Your task to perform on an android device: Add logitech g910 to the cart on newegg Image 0: 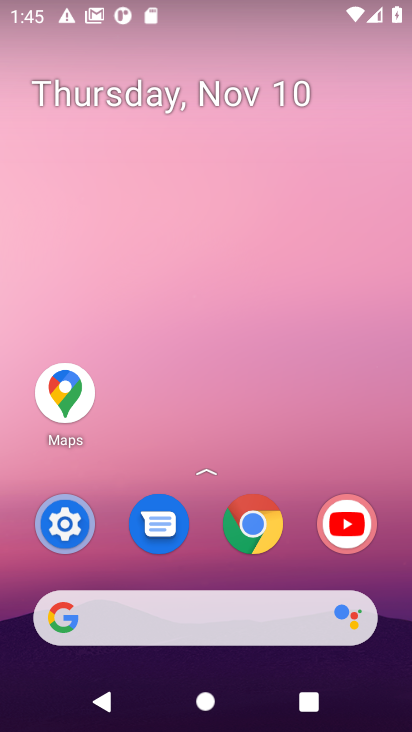
Step 0: click (246, 517)
Your task to perform on an android device: Add logitech g910 to the cart on newegg Image 1: 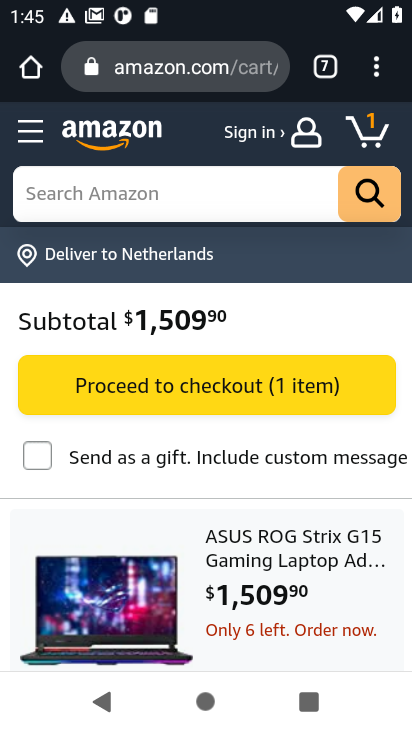
Step 1: click (326, 69)
Your task to perform on an android device: Add logitech g910 to the cart on newegg Image 2: 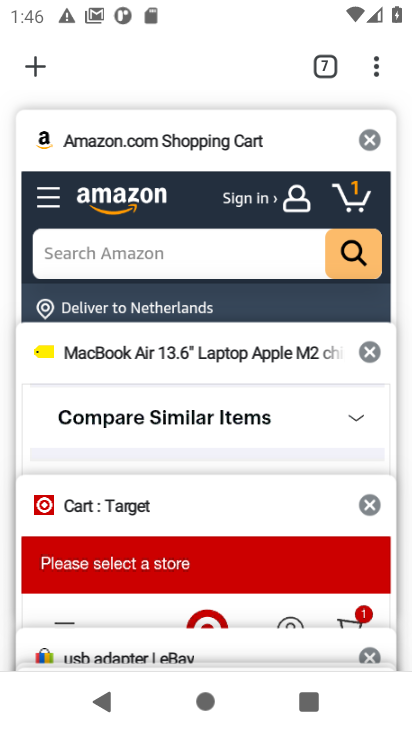
Step 2: drag from (227, 621) to (302, 312)
Your task to perform on an android device: Add logitech g910 to the cart on newegg Image 3: 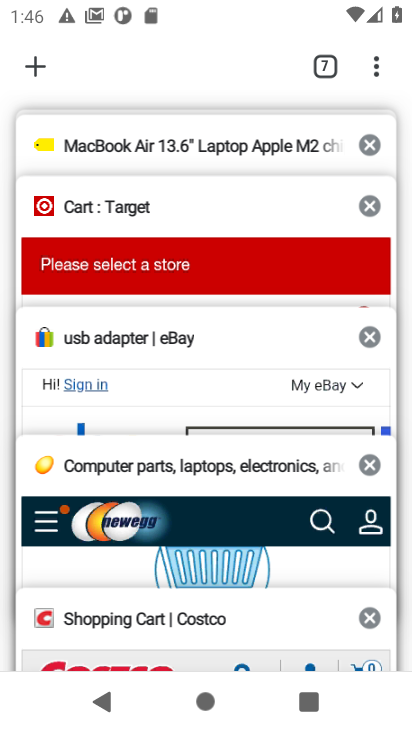
Step 3: click (220, 511)
Your task to perform on an android device: Add logitech g910 to the cart on newegg Image 4: 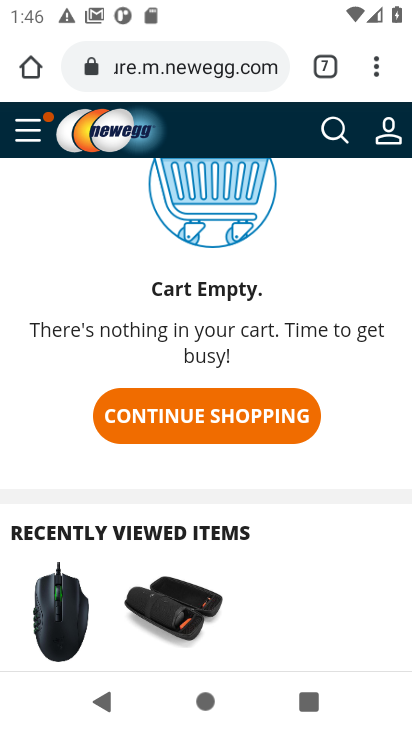
Step 4: click (341, 135)
Your task to perform on an android device: Add logitech g910 to the cart on newegg Image 5: 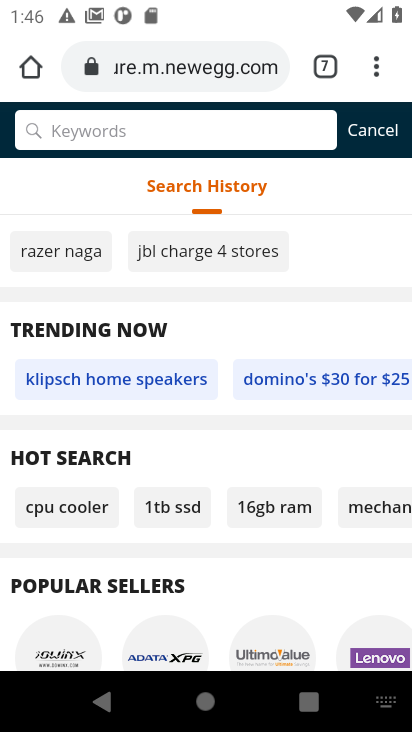
Step 5: click (278, 127)
Your task to perform on an android device: Add logitech g910 to the cart on newegg Image 6: 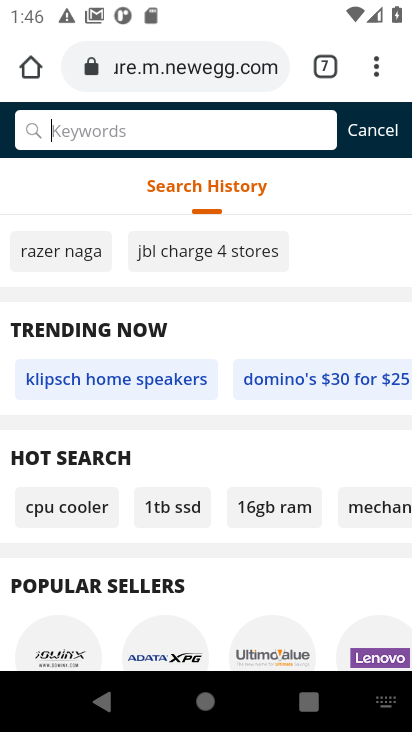
Step 6: type "logitech g910"
Your task to perform on an android device: Add logitech g910 to the cart on newegg Image 7: 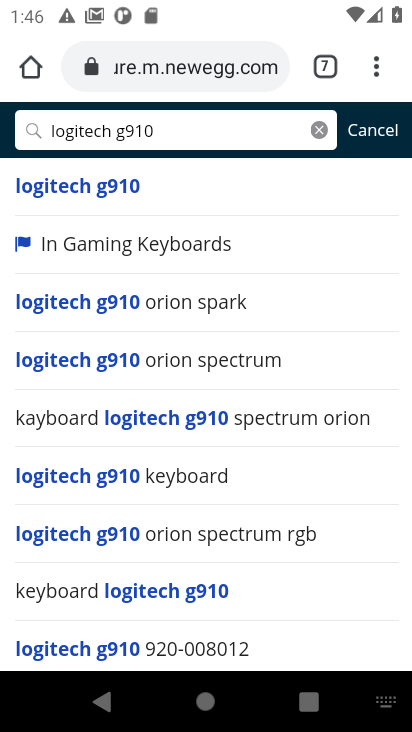
Step 7: click (98, 192)
Your task to perform on an android device: Add logitech g910 to the cart on newegg Image 8: 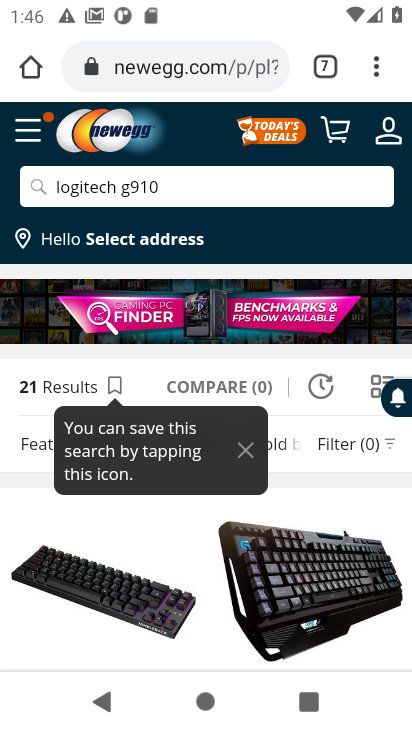
Step 8: drag from (143, 581) to (217, 259)
Your task to perform on an android device: Add logitech g910 to the cart on newegg Image 9: 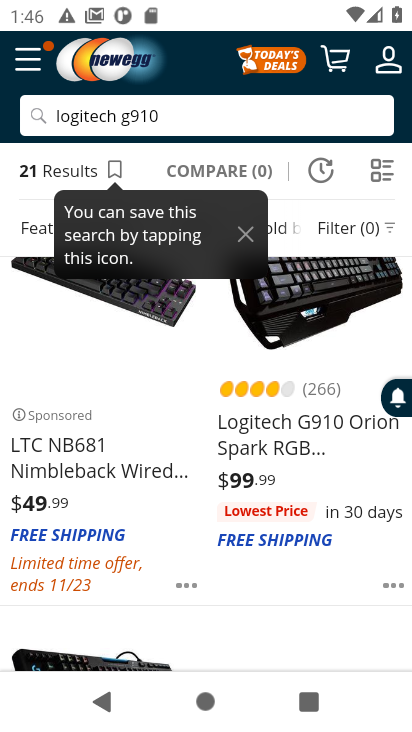
Step 9: click (281, 417)
Your task to perform on an android device: Add logitech g910 to the cart on newegg Image 10: 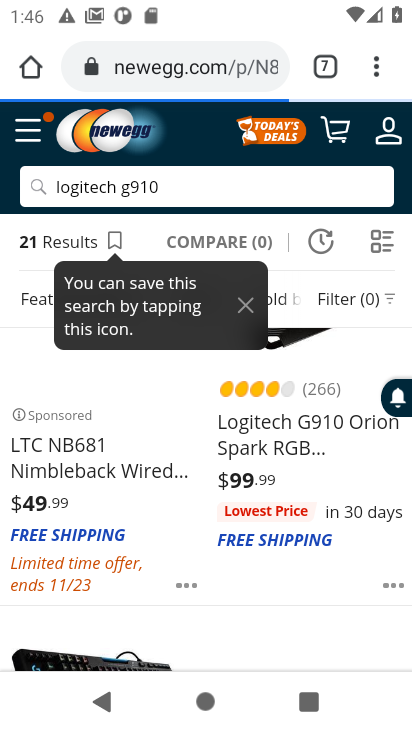
Step 10: click (281, 417)
Your task to perform on an android device: Add logitech g910 to the cart on newegg Image 11: 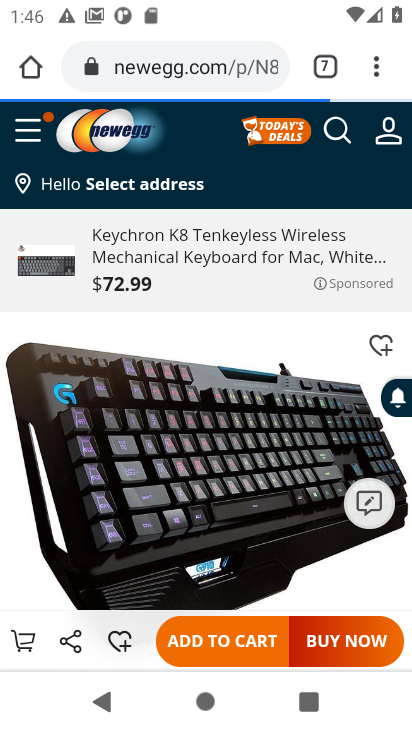
Step 11: click (281, 417)
Your task to perform on an android device: Add logitech g910 to the cart on newegg Image 12: 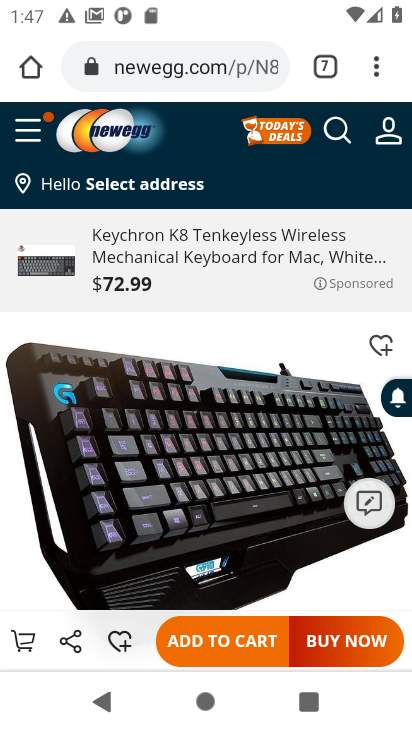
Step 12: click (221, 634)
Your task to perform on an android device: Add logitech g910 to the cart on newegg Image 13: 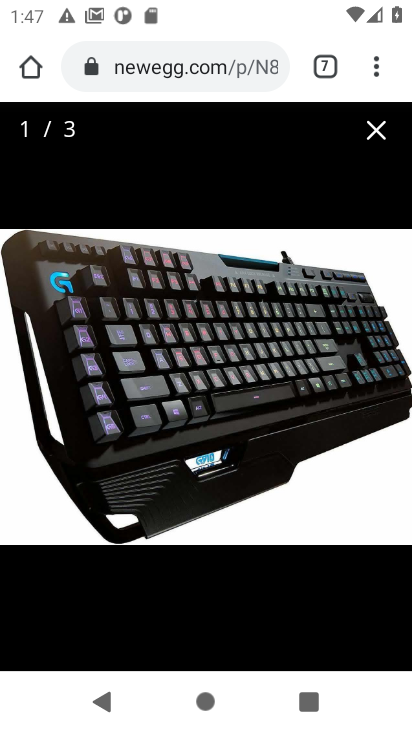
Step 13: click (383, 131)
Your task to perform on an android device: Add logitech g910 to the cart on newegg Image 14: 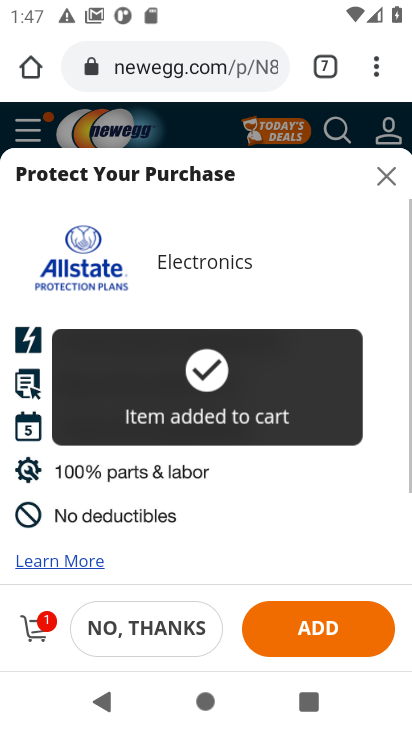
Step 14: task complete